Your task to perform on an android device: turn off location history Image 0: 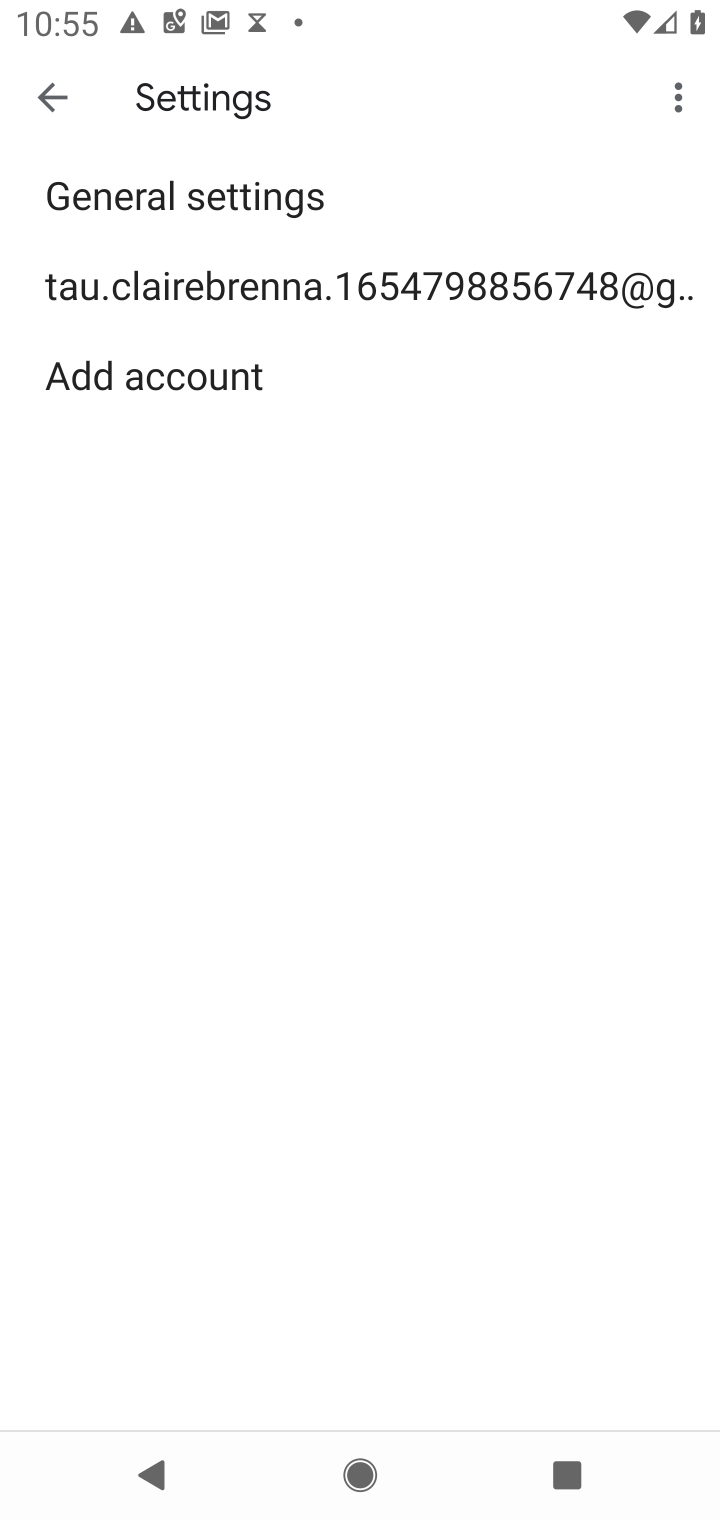
Step 0: press home button
Your task to perform on an android device: turn off location history Image 1: 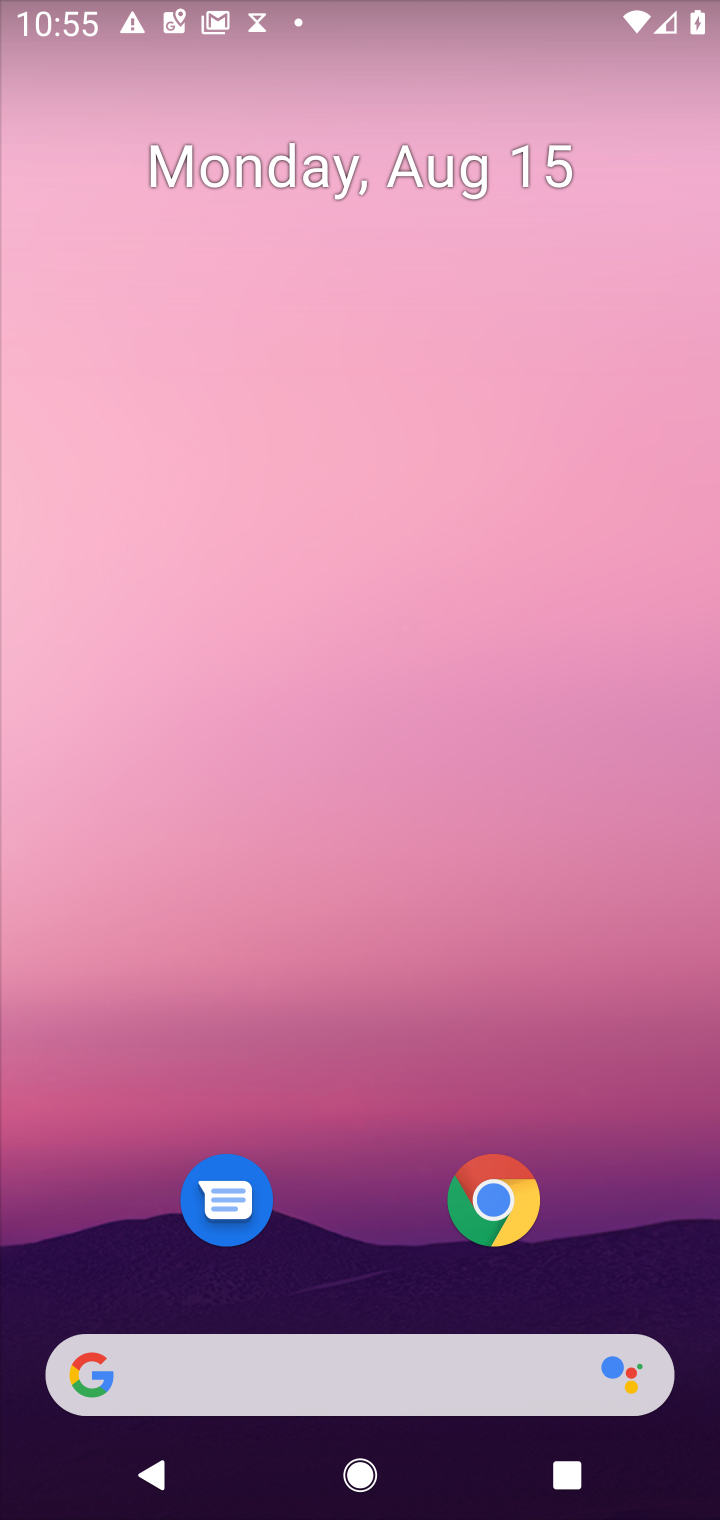
Step 1: drag from (359, 1167) to (339, 162)
Your task to perform on an android device: turn off location history Image 2: 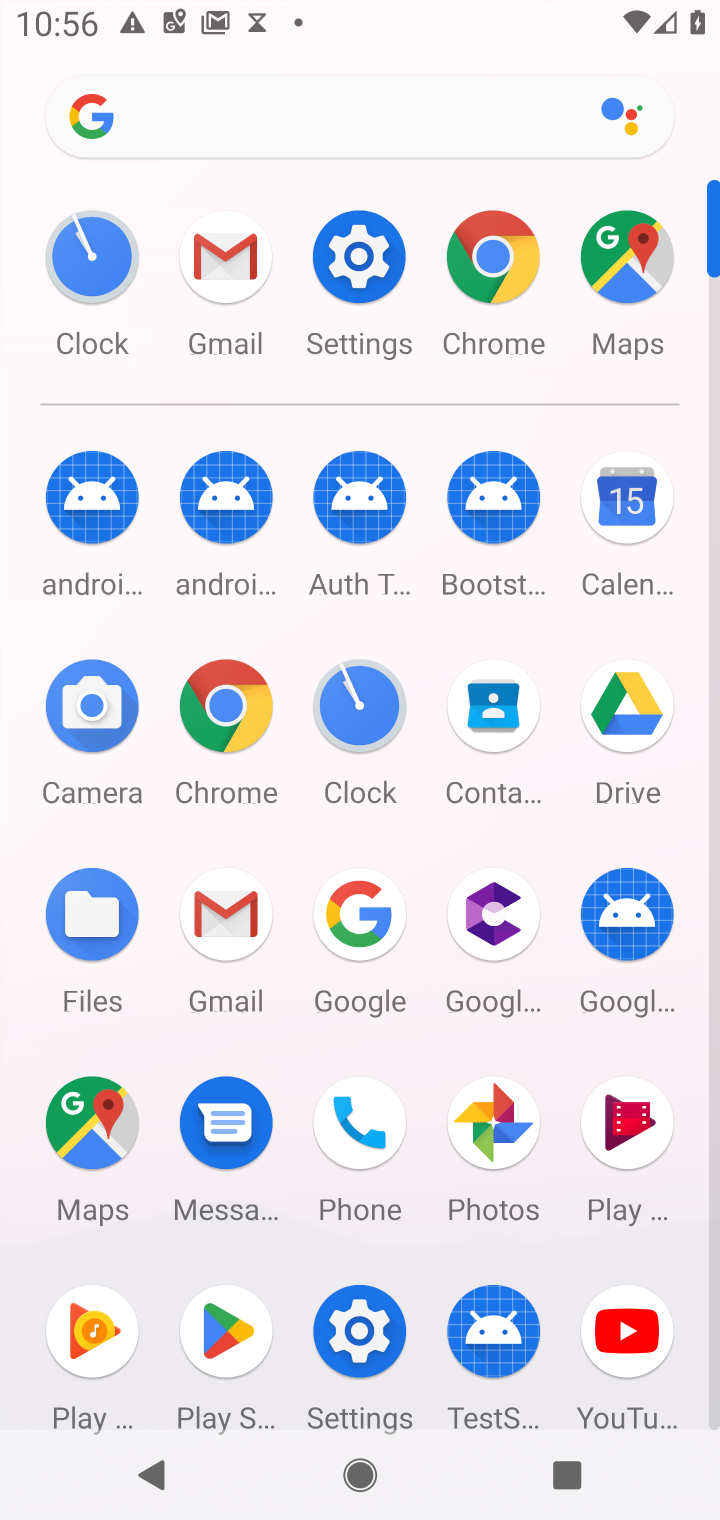
Step 2: click (340, 259)
Your task to perform on an android device: turn off location history Image 3: 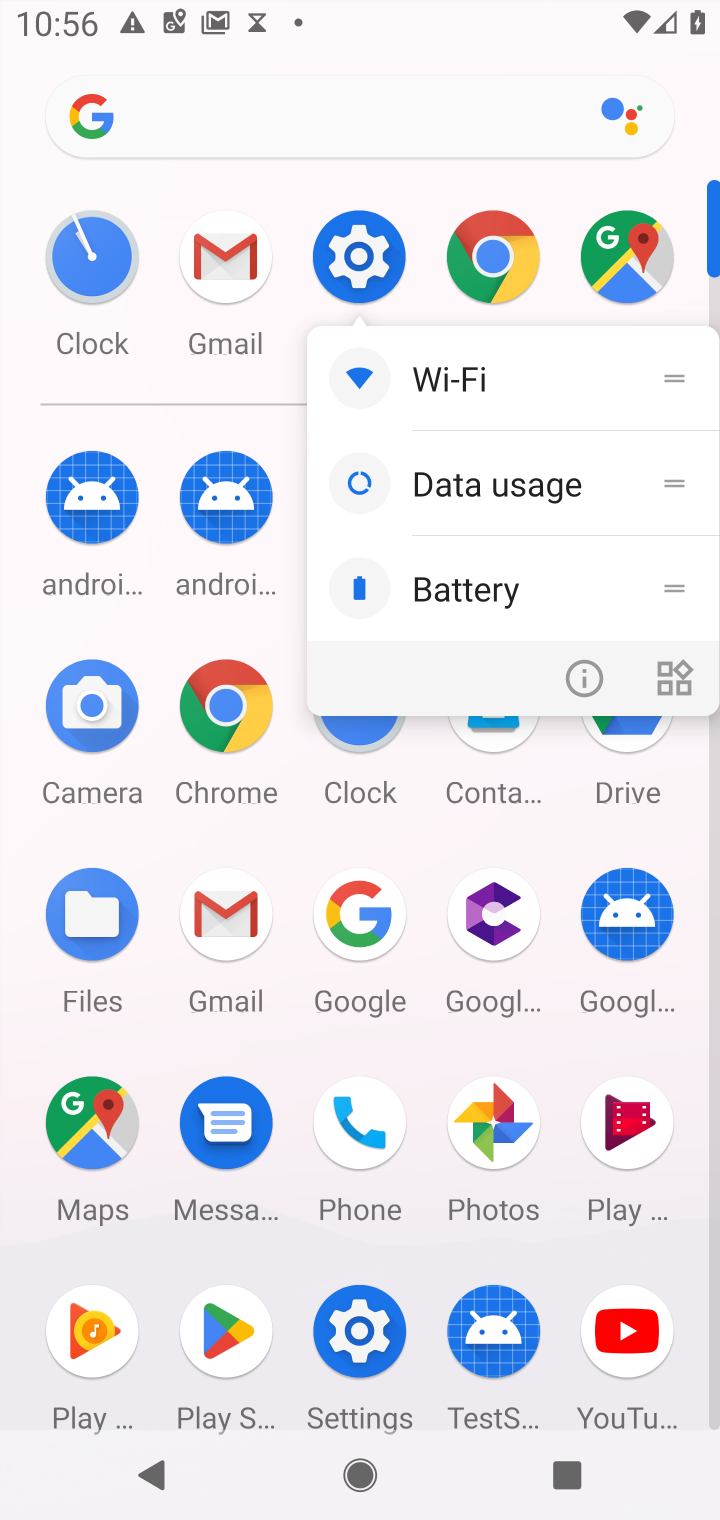
Step 3: click (340, 259)
Your task to perform on an android device: turn off location history Image 4: 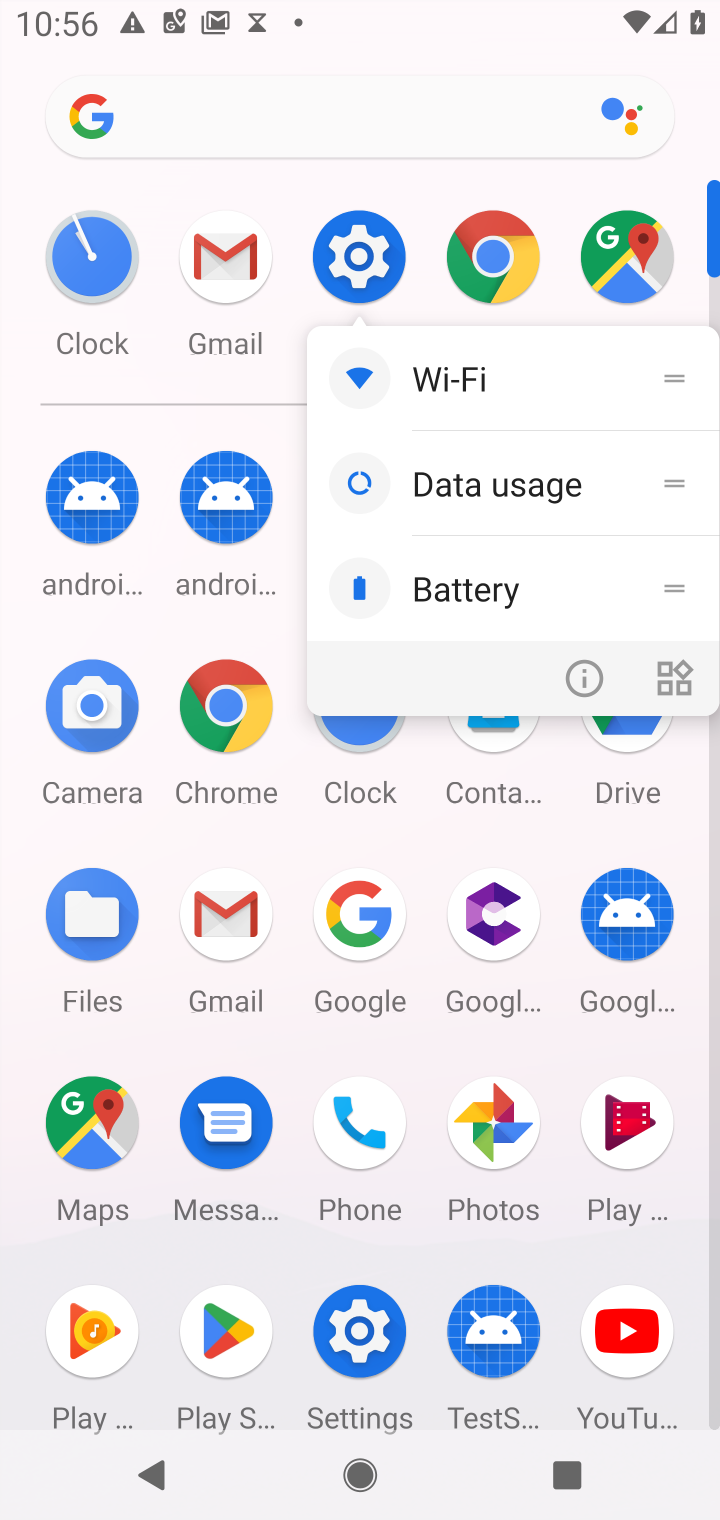
Step 4: click (340, 259)
Your task to perform on an android device: turn off location history Image 5: 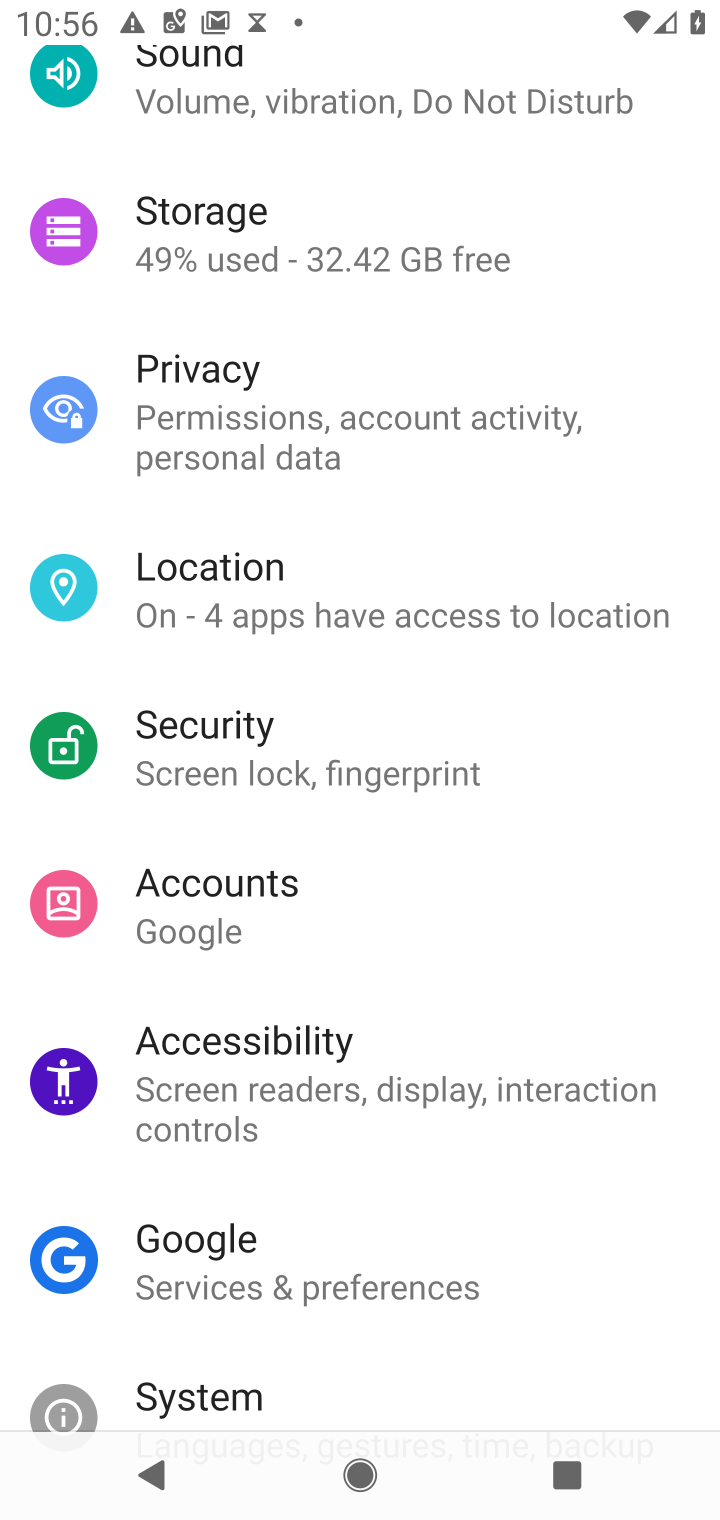
Step 5: click (326, 597)
Your task to perform on an android device: turn off location history Image 6: 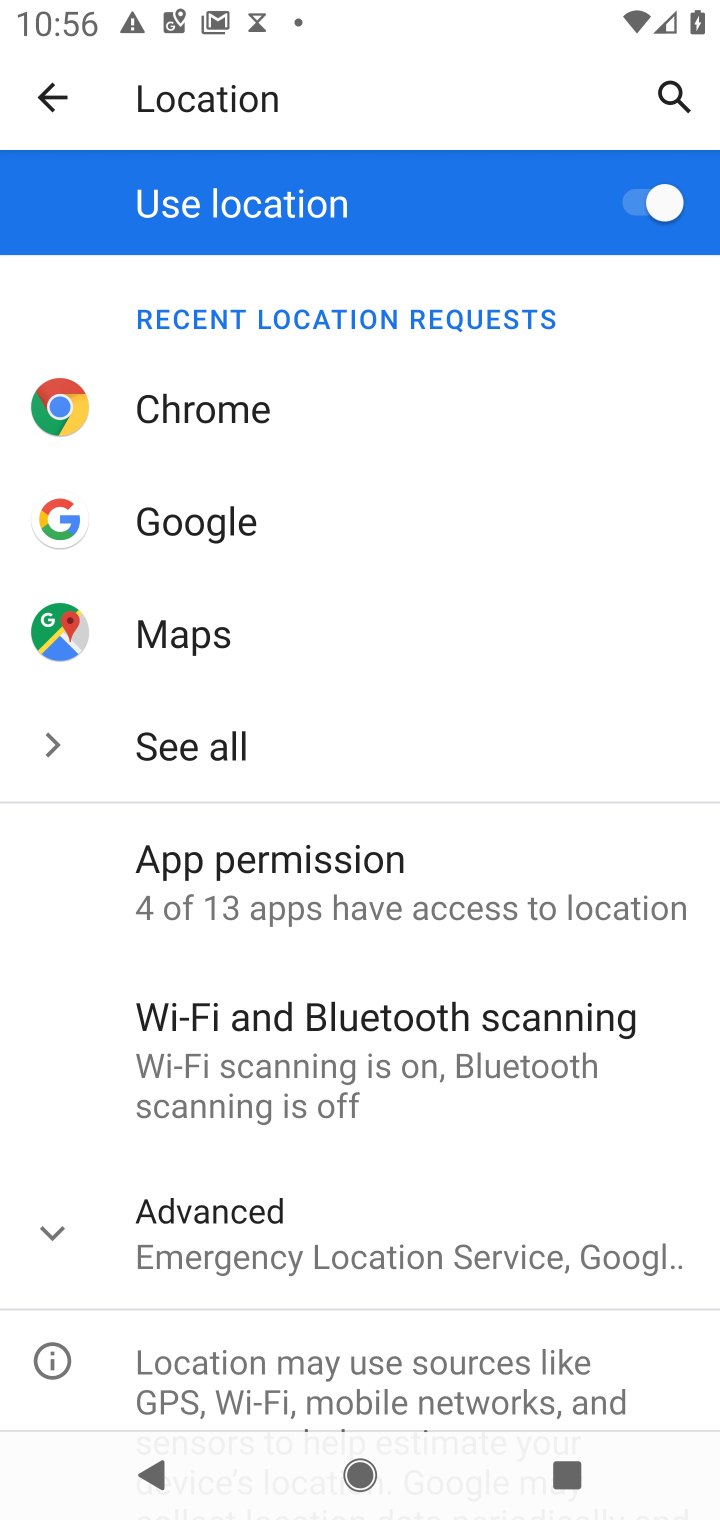
Step 6: click (408, 1232)
Your task to perform on an android device: turn off location history Image 7: 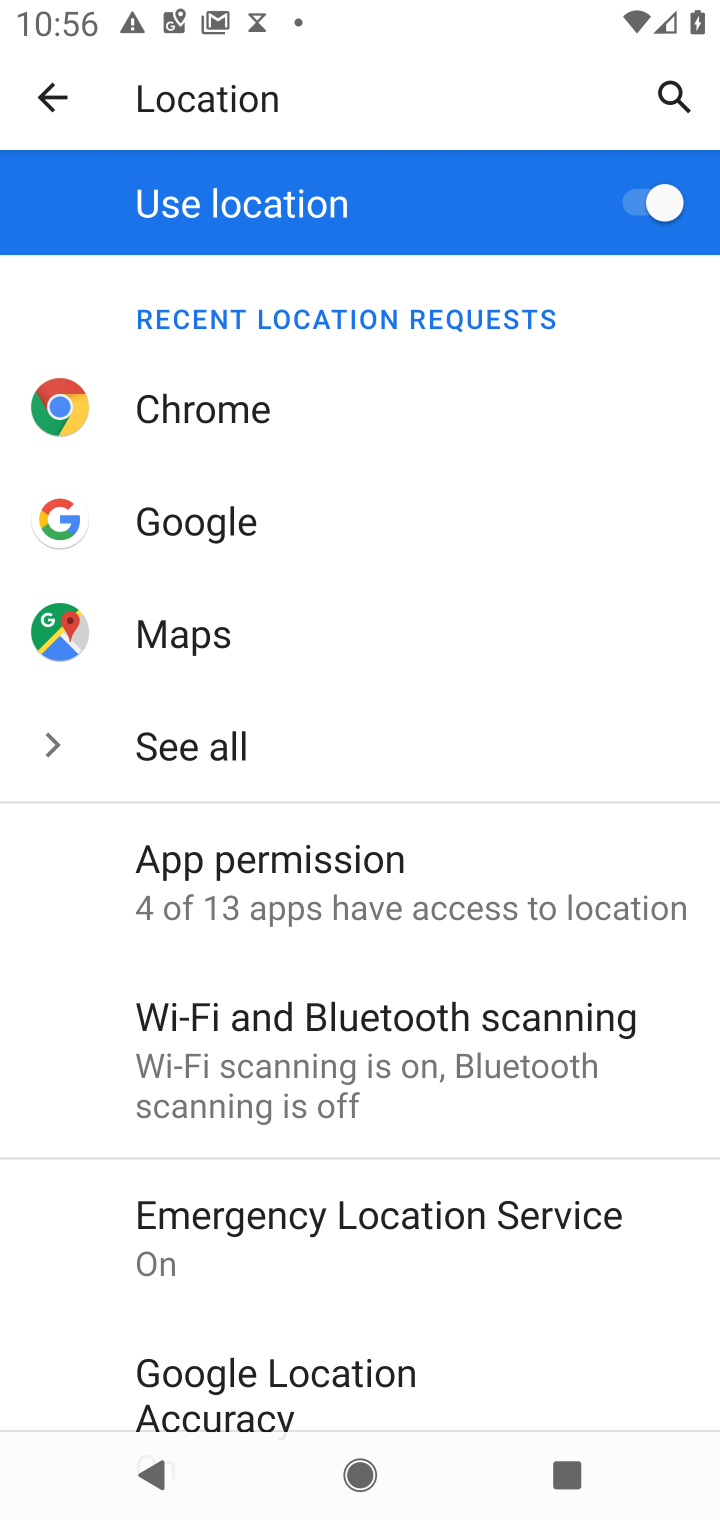
Step 7: drag from (400, 1242) to (402, 545)
Your task to perform on an android device: turn off location history Image 8: 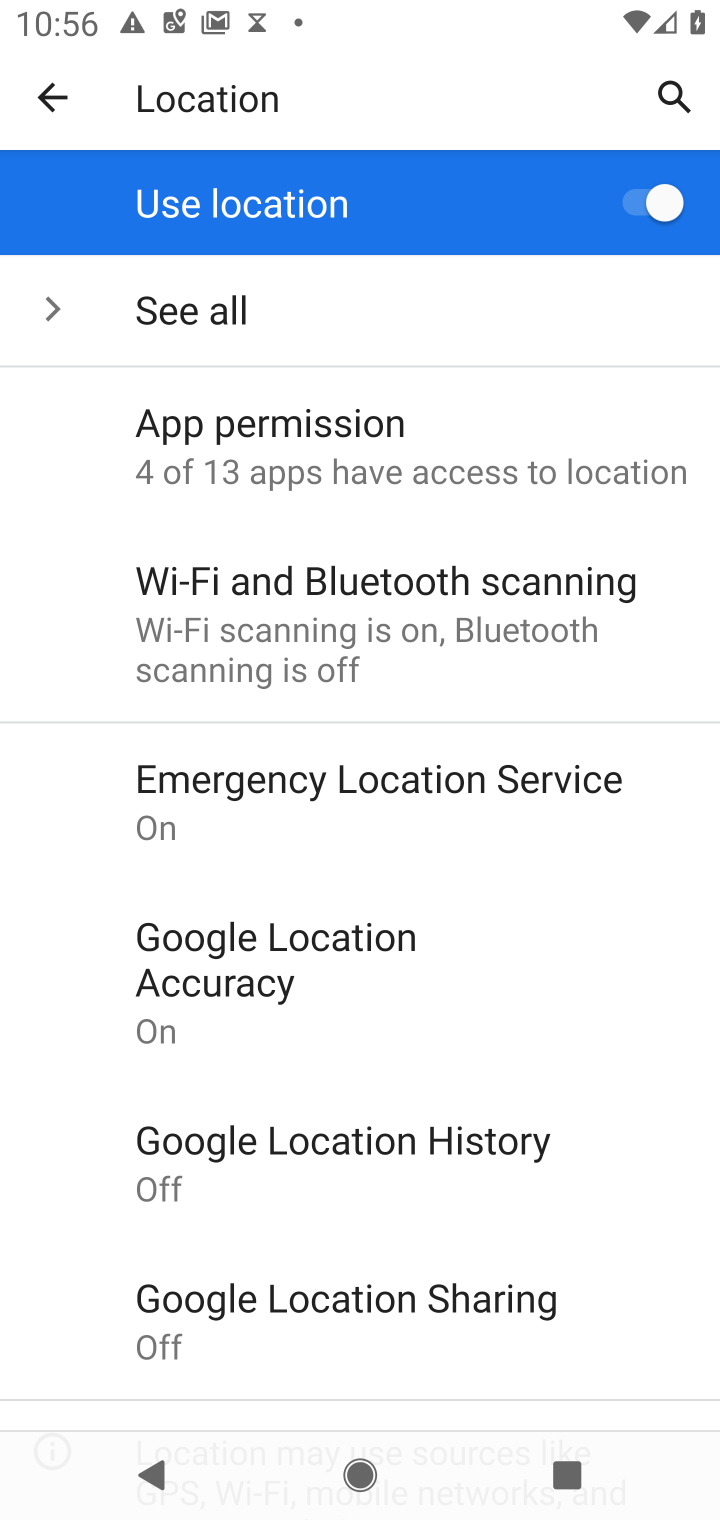
Step 8: click (365, 1145)
Your task to perform on an android device: turn off location history Image 9: 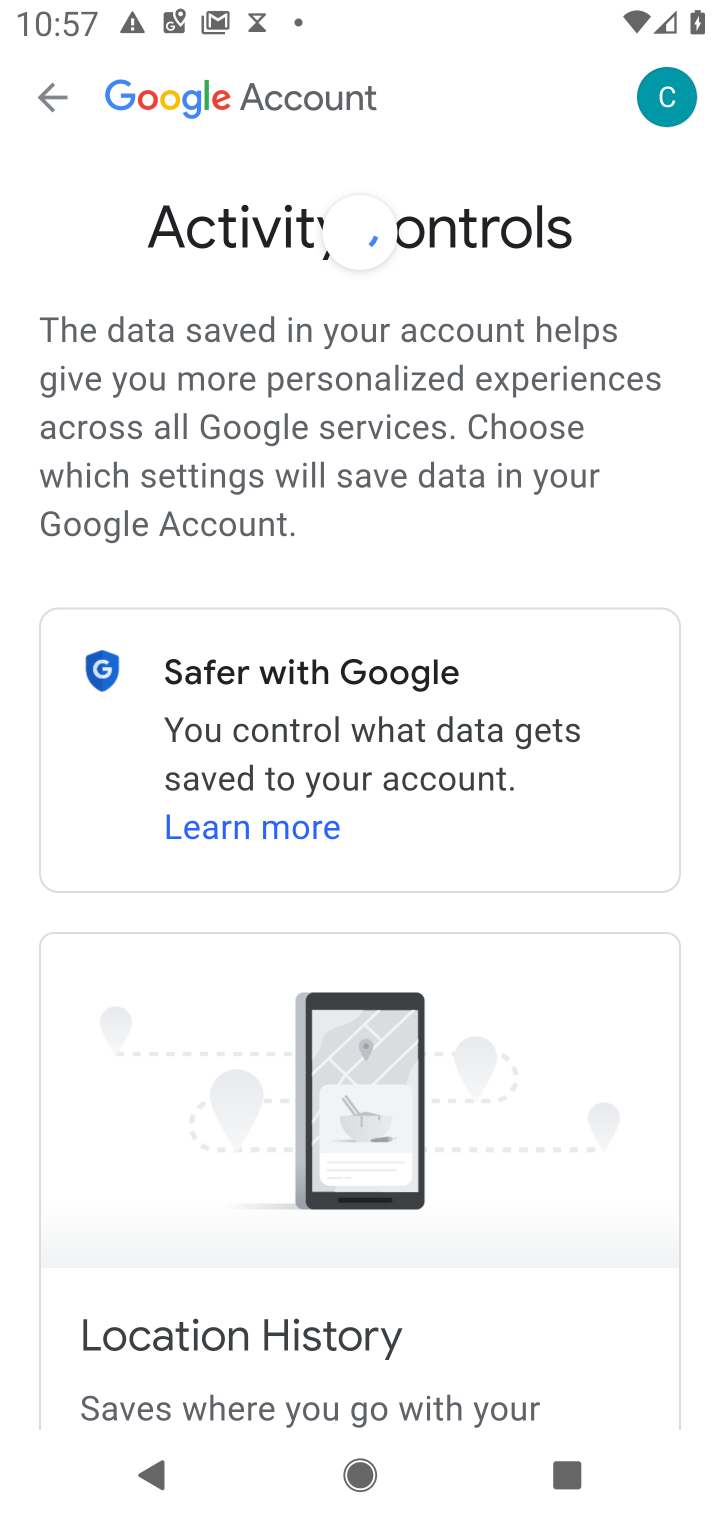
Step 9: task complete